Your task to perform on an android device: What's the weather today? Image 0: 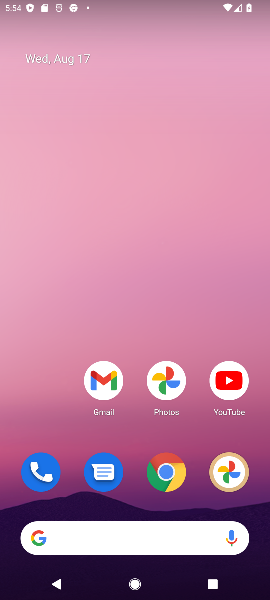
Step 0: drag from (137, 441) to (138, 0)
Your task to perform on an android device: What's the weather today? Image 1: 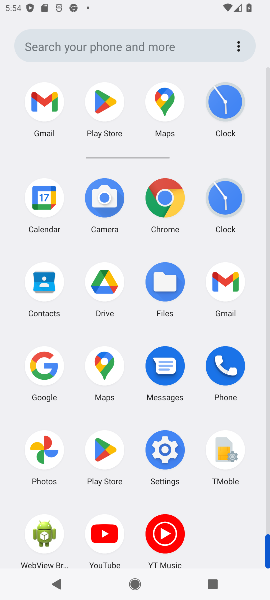
Step 1: click (52, 384)
Your task to perform on an android device: What's the weather today? Image 2: 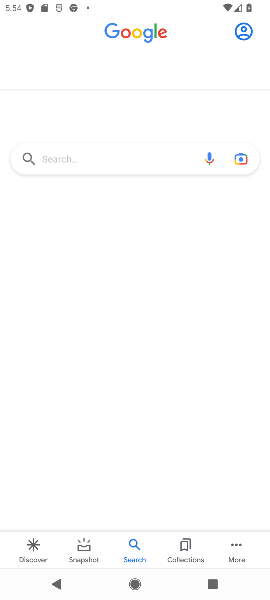
Step 2: click (129, 159)
Your task to perform on an android device: What's the weather today? Image 3: 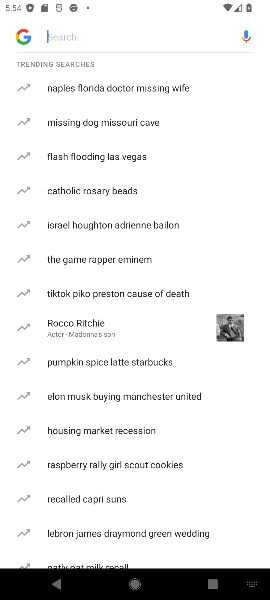
Step 3: type "weather today"
Your task to perform on an android device: What's the weather today? Image 4: 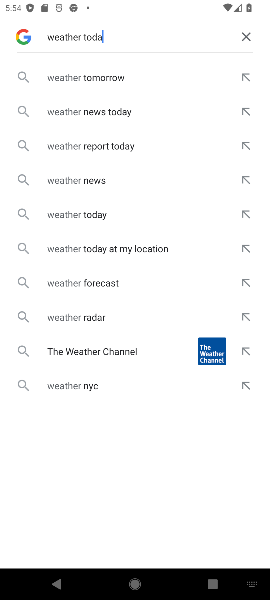
Step 4: type ""
Your task to perform on an android device: What's the weather today? Image 5: 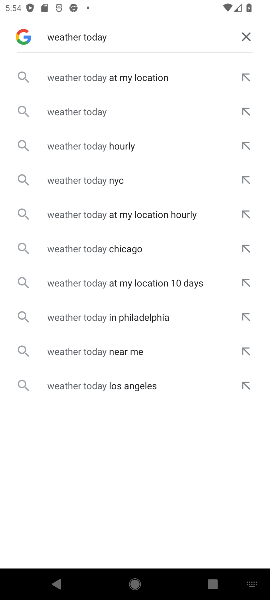
Step 5: click (92, 114)
Your task to perform on an android device: What's the weather today? Image 6: 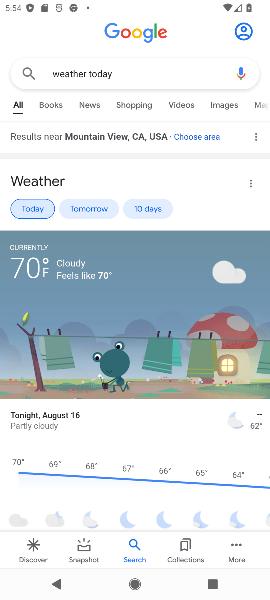
Step 6: task complete